Your task to perform on an android device: Do I have any events today? Image 0: 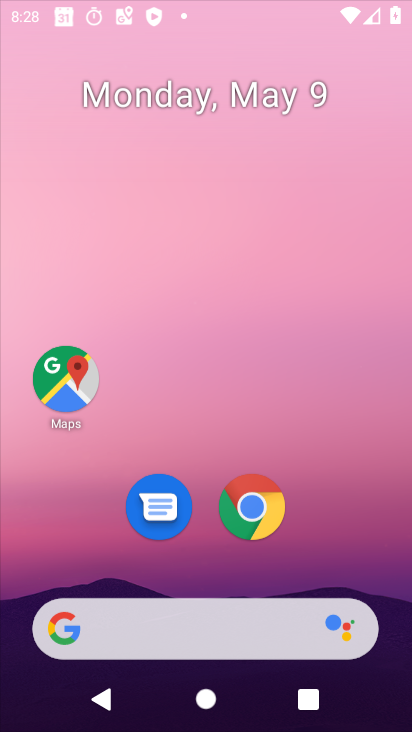
Step 0: drag from (302, 640) to (233, 184)
Your task to perform on an android device: Do I have any events today? Image 1: 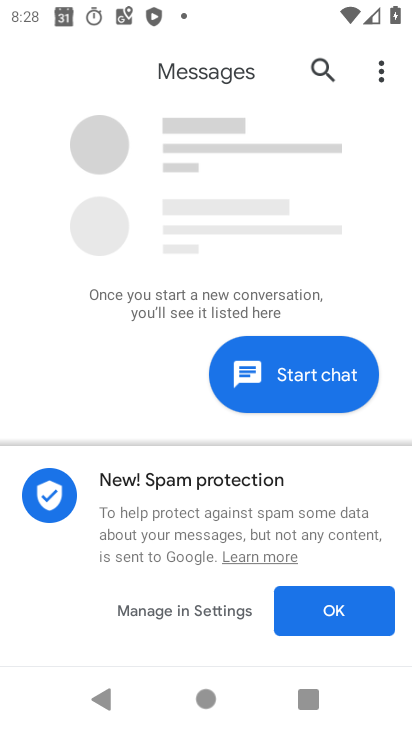
Step 1: press home button
Your task to perform on an android device: Do I have any events today? Image 2: 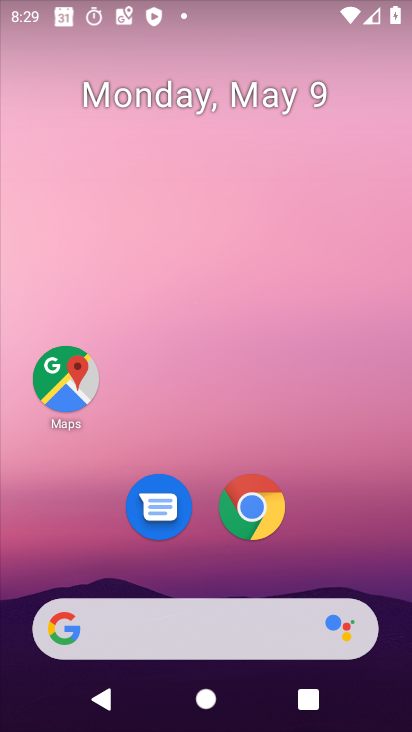
Step 2: drag from (256, 667) to (162, 161)
Your task to perform on an android device: Do I have any events today? Image 3: 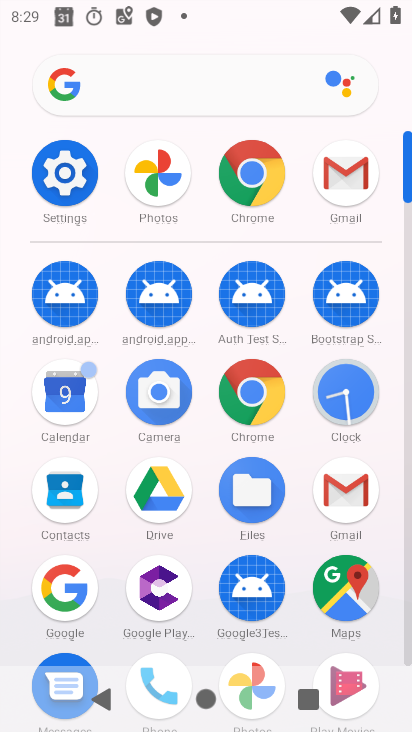
Step 3: click (55, 394)
Your task to perform on an android device: Do I have any events today? Image 4: 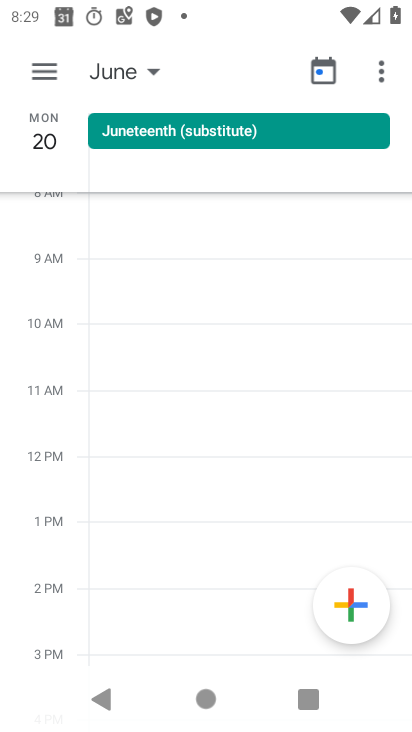
Step 4: click (31, 77)
Your task to perform on an android device: Do I have any events today? Image 5: 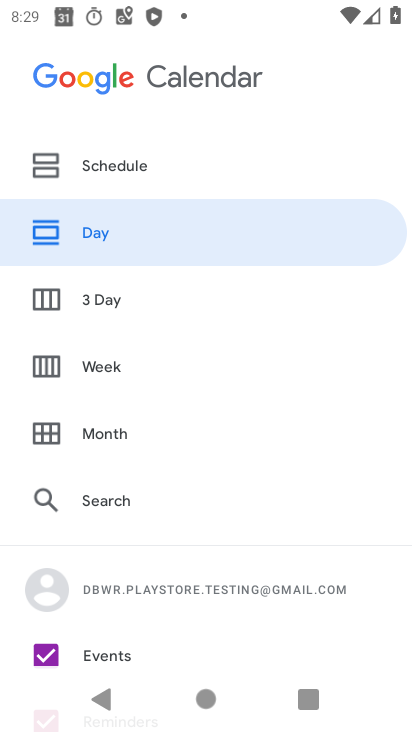
Step 5: click (124, 434)
Your task to perform on an android device: Do I have any events today? Image 6: 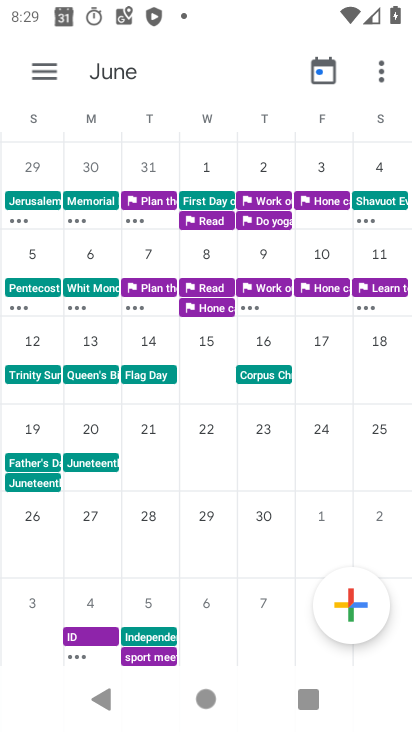
Step 6: drag from (35, 360) to (400, 271)
Your task to perform on an android device: Do I have any events today? Image 7: 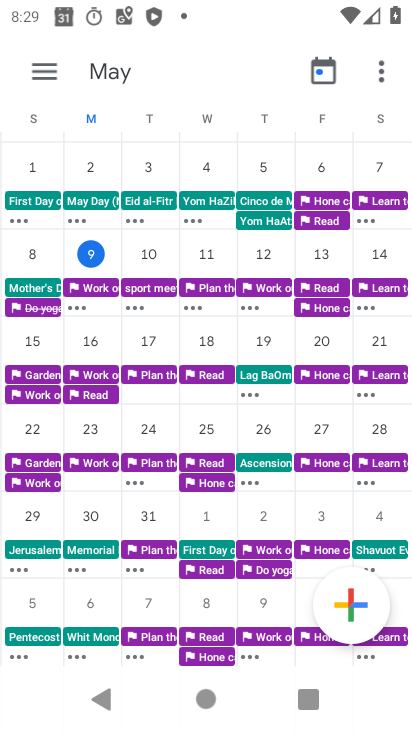
Step 7: click (44, 65)
Your task to perform on an android device: Do I have any events today? Image 8: 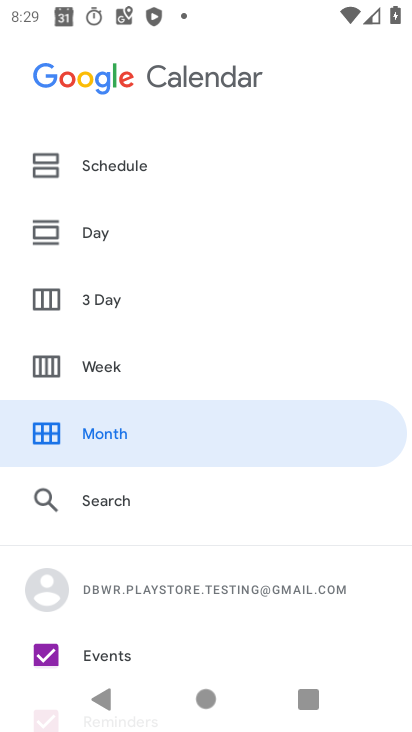
Step 8: click (144, 165)
Your task to perform on an android device: Do I have any events today? Image 9: 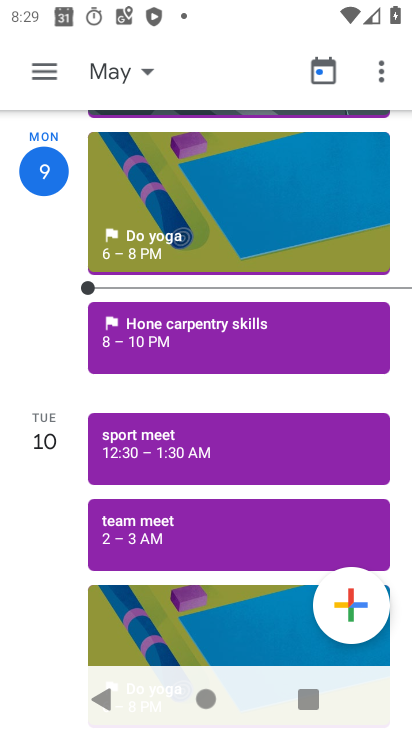
Step 9: task complete